Your task to perform on an android device: delete a single message in the gmail app Image 0: 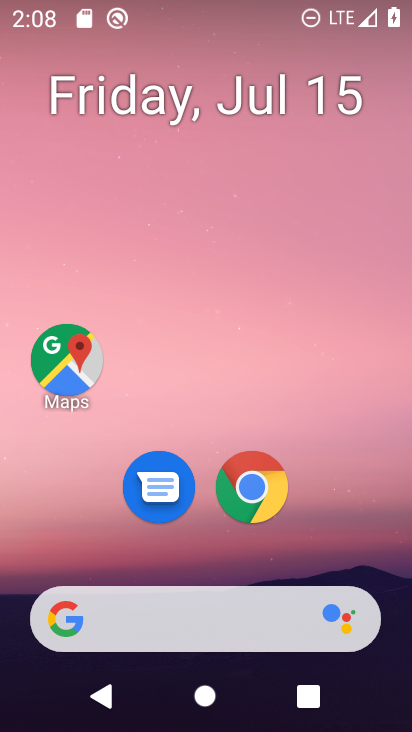
Step 0: drag from (226, 567) to (253, 182)
Your task to perform on an android device: delete a single message in the gmail app Image 1: 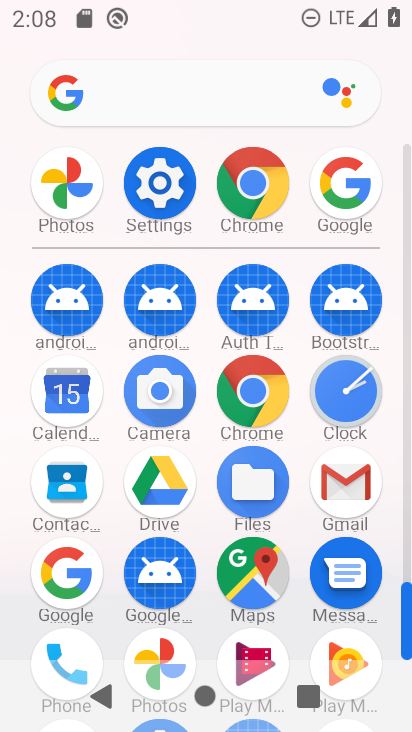
Step 1: click (354, 490)
Your task to perform on an android device: delete a single message in the gmail app Image 2: 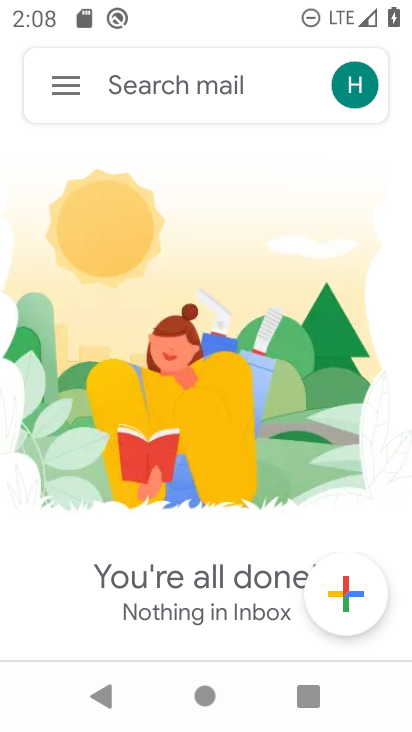
Step 2: click (65, 94)
Your task to perform on an android device: delete a single message in the gmail app Image 3: 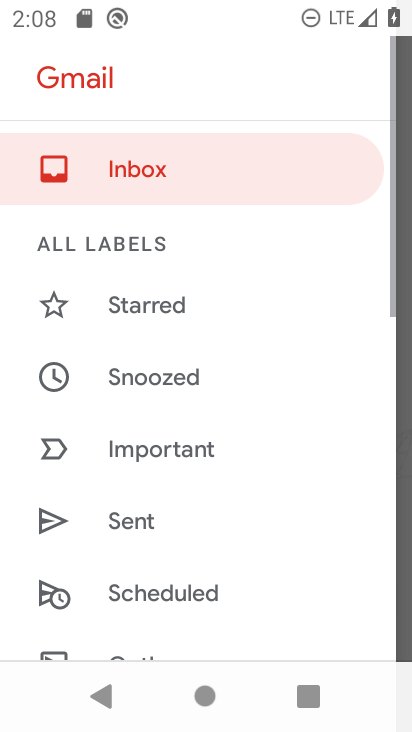
Step 3: drag from (112, 571) to (193, 291)
Your task to perform on an android device: delete a single message in the gmail app Image 4: 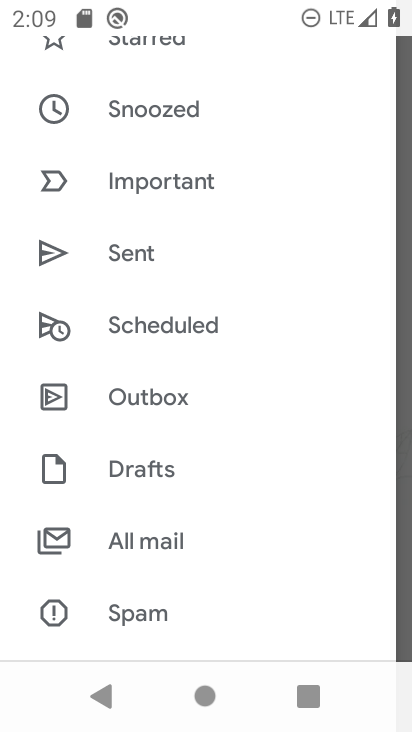
Step 4: drag from (162, 522) to (232, 207)
Your task to perform on an android device: delete a single message in the gmail app Image 5: 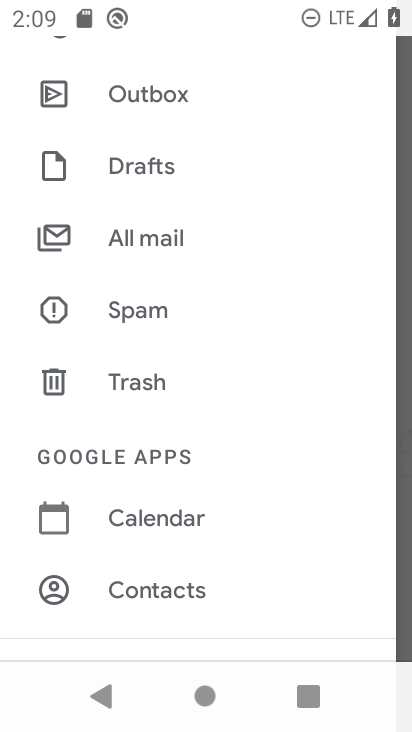
Step 5: click (139, 258)
Your task to perform on an android device: delete a single message in the gmail app Image 6: 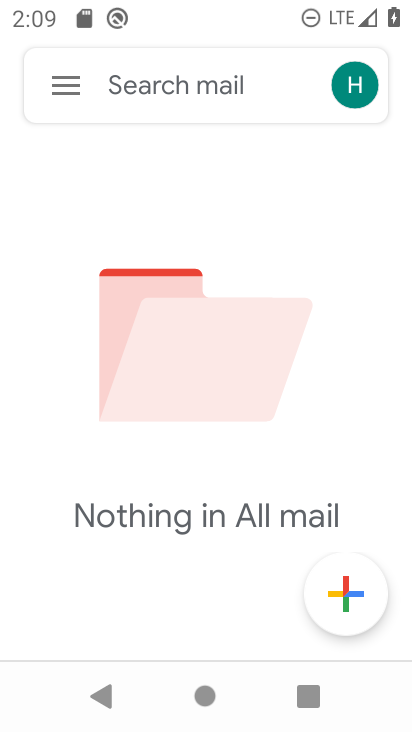
Step 6: task complete